Your task to perform on an android device: turn off smart reply in the gmail app Image 0: 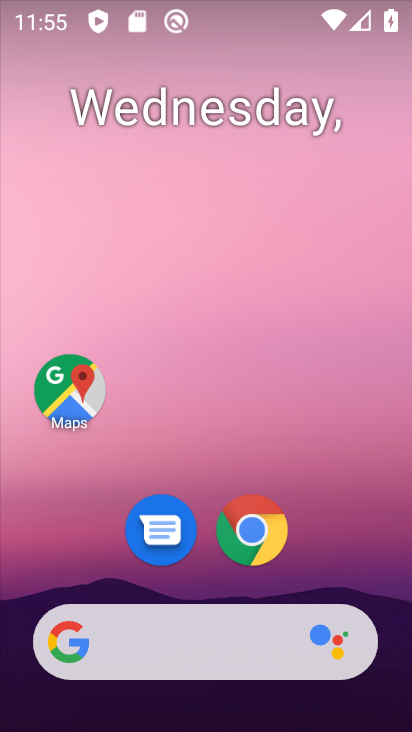
Step 0: drag from (196, 656) to (177, 148)
Your task to perform on an android device: turn off smart reply in the gmail app Image 1: 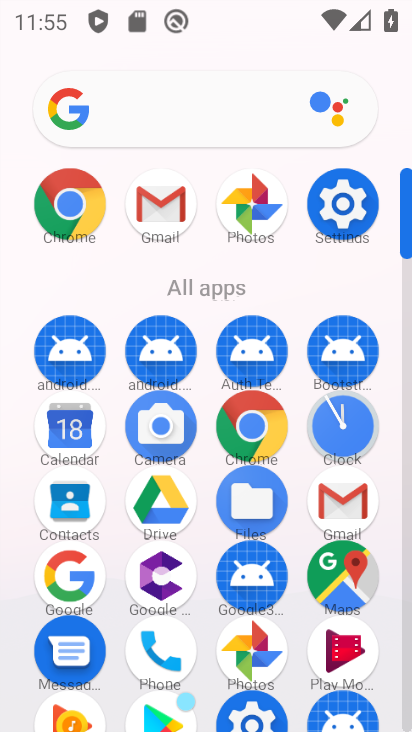
Step 1: click (159, 216)
Your task to perform on an android device: turn off smart reply in the gmail app Image 2: 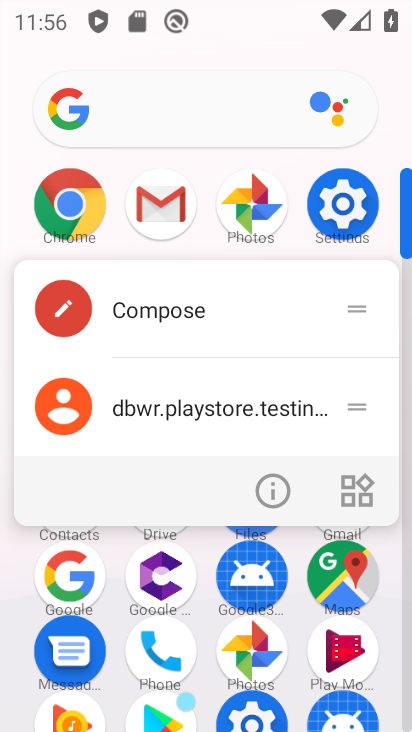
Step 2: click (167, 226)
Your task to perform on an android device: turn off smart reply in the gmail app Image 3: 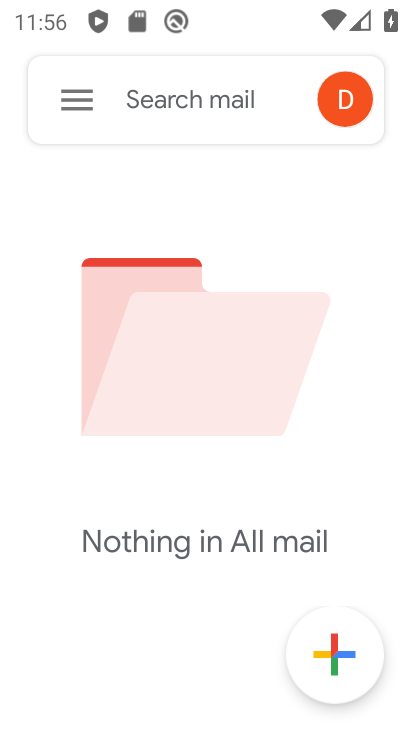
Step 3: click (70, 99)
Your task to perform on an android device: turn off smart reply in the gmail app Image 4: 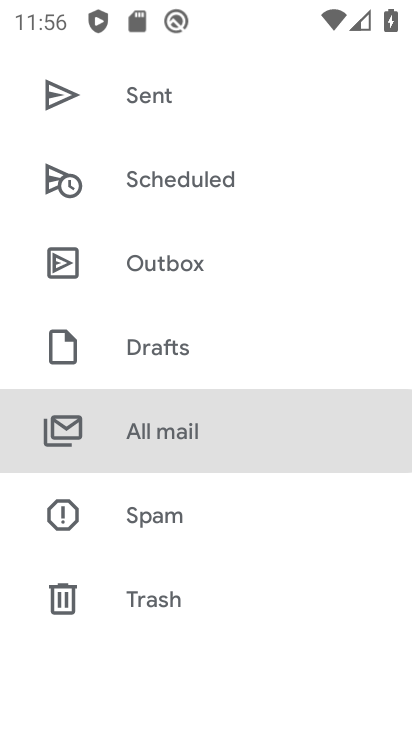
Step 4: click (182, 124)
Your task to perform on an android device: turn off smart reply in the gmail app Image 5: 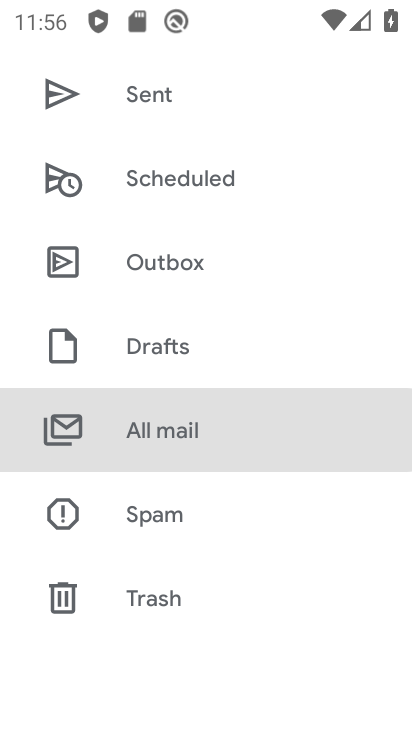
Step 5: drag from (164, 563) to (135, 69)
Your task to perform on an android device: turn off smart reply in the gmail app Image 6: 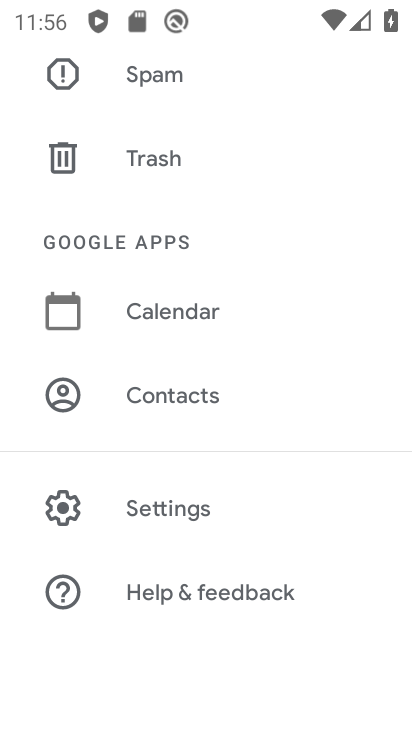
Step 6: click (180, 507)
Your task to perform on an android device: turn off smart reply in the gmail app Image 7: 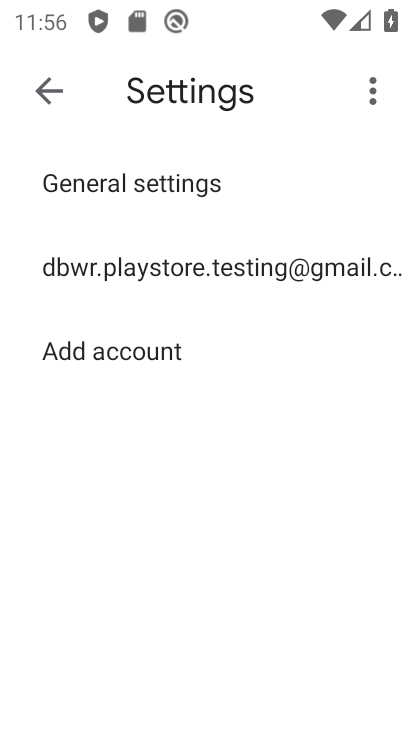
Step 7: click (157, 259)
Your task to perform on an android device: turn off smart reply in the gmail app Image 8: 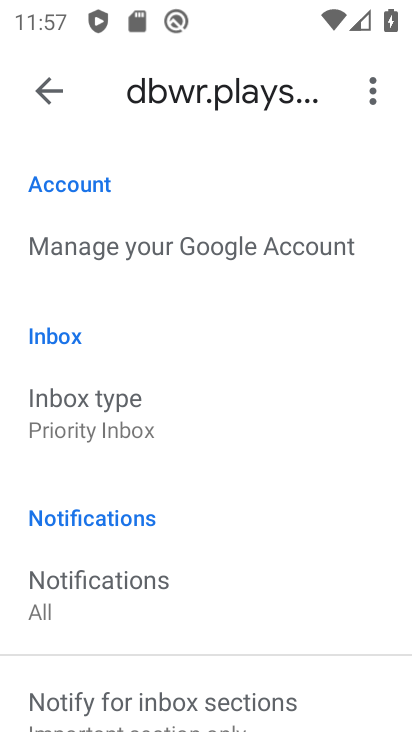
Step 8: drag from (156, 610) to (112, 289)
Your task to perform on an android device: turn off smart reply in the gmail app Image 9: 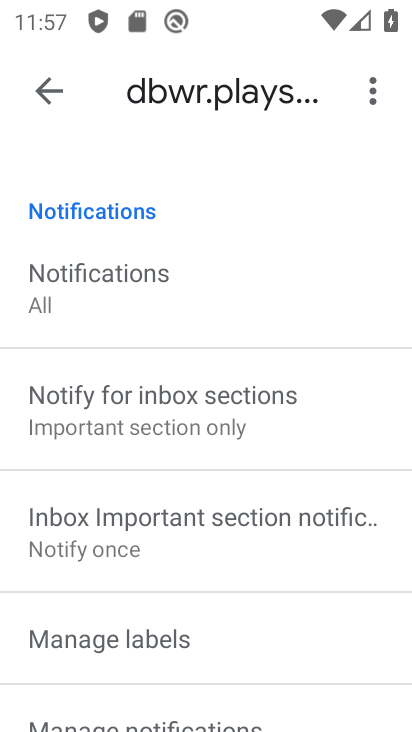
Step 9: drag from (180, 613) to (130, 48)
Your task to perform on an android device: turn off smart reply in the gmail app Image 10: 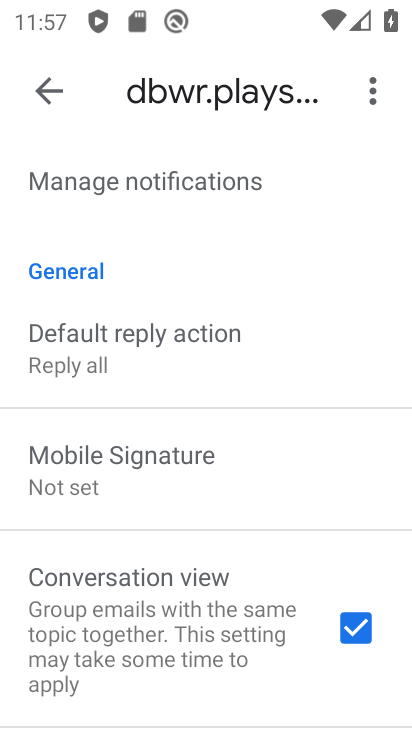
Step 10: drag from (104, 498) to (2, 79)
Your task to perform on an android device: turn off smart reply in the gmail app Image 11: 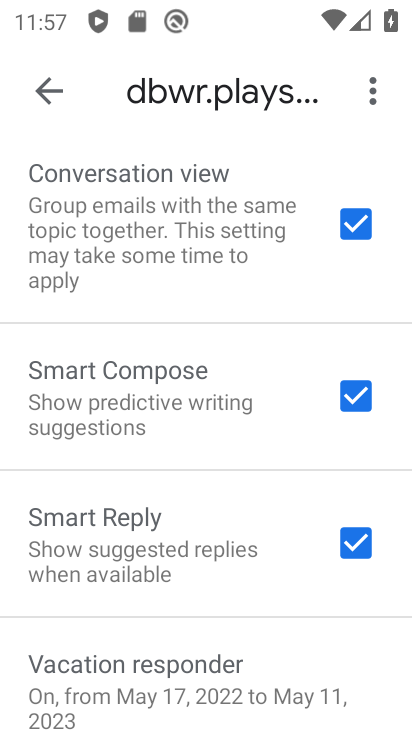
Step 11: click (354, 560)
Your task to perform on an android device: turn off smart reply in the gmail app Image 12: 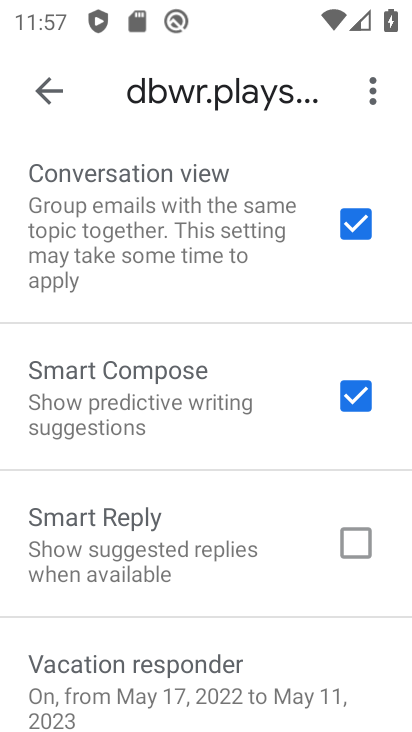
Step 12: task complete